Your task to perform on an android device: turn on sleep mode Image 0: 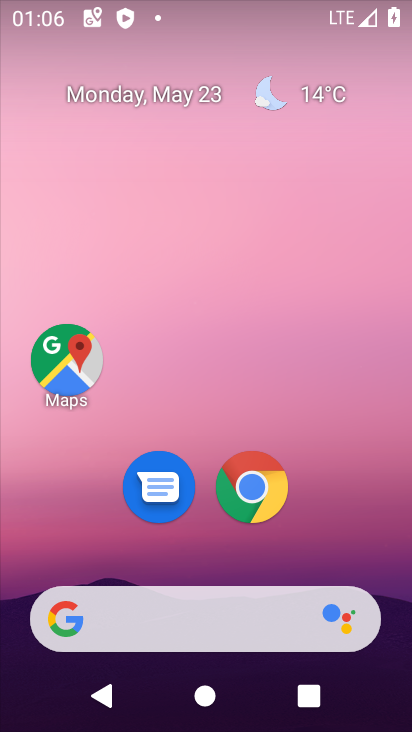
Step 0: drag from (401, 606) to (344, 104)
Your task to perform on an android device: turn on sleep mode Image 1: 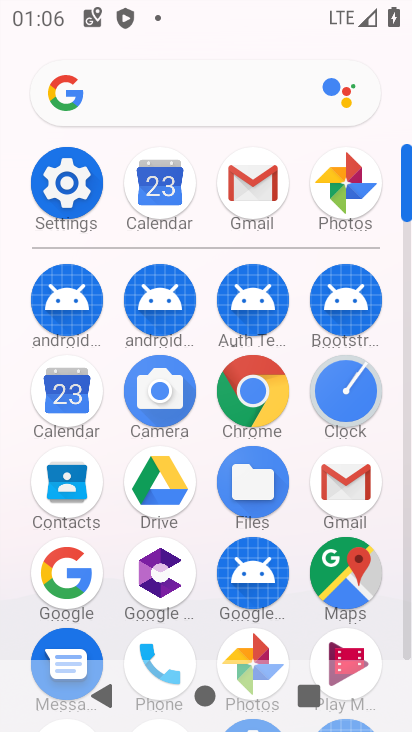
Step 1: click (405, 644)
Your task to perform on an android device: turn on sleep mode Image 2: 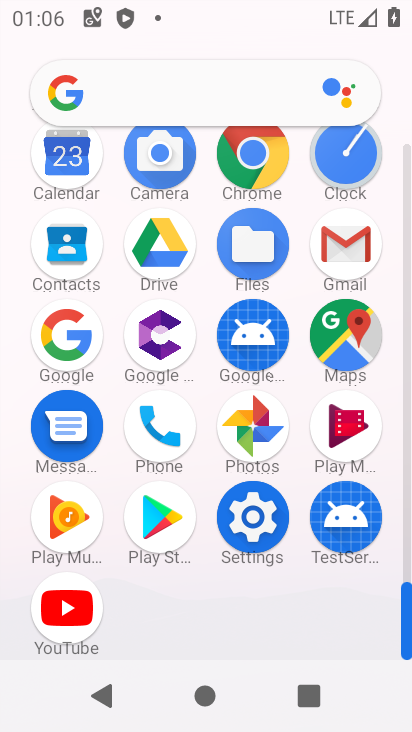
Step 2: click (250, 519)
Your task to perform on an android device: turn on sleep mode Image 3: 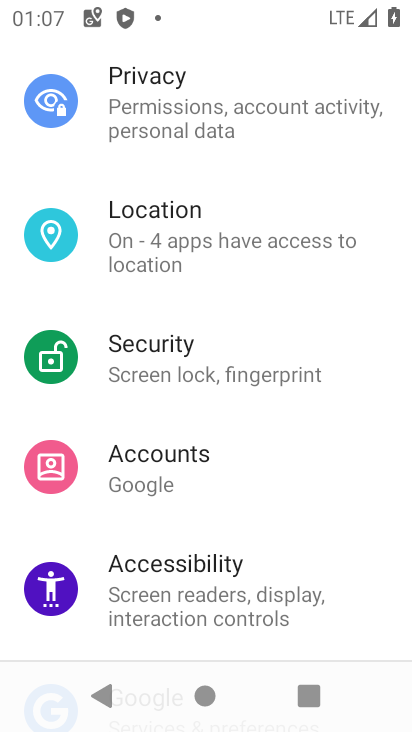
Step 3: drag from (335, 179) to (308, 552)
Your task to perform on an android device: turn on sleep mode Image 4: 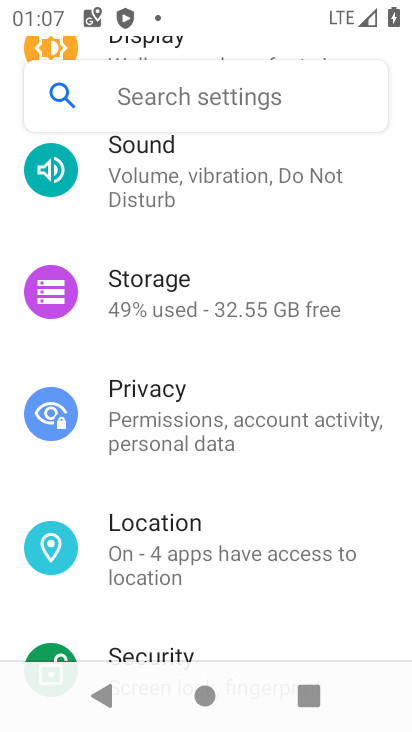
Step 4: drag from (249, 217) to (255, 519)
Your task to perform on an android device: turn on sleep mode Image 5: 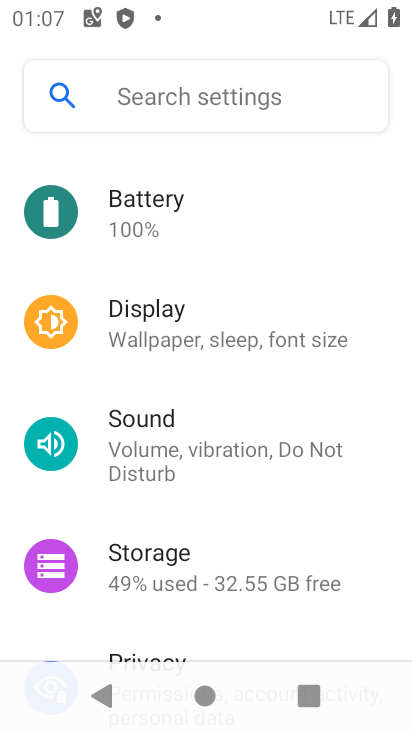
Step 5: click (160, 326)
Your task to perform on an android device: turn on sleep mode Image 6: 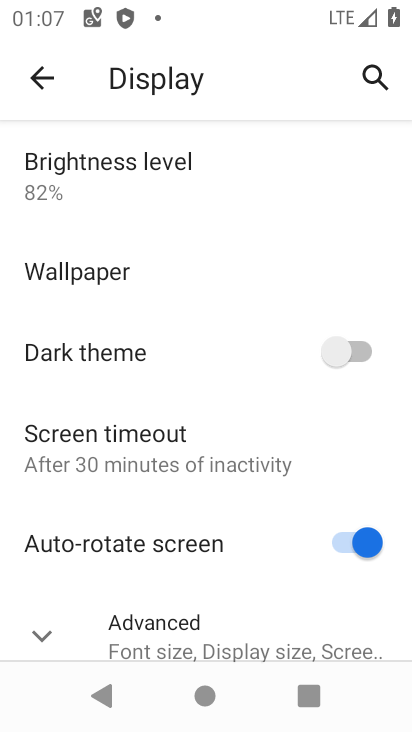
Step 6: click (30, 639)
Your task to perform on an android device: turn on sleep mode Image 7: 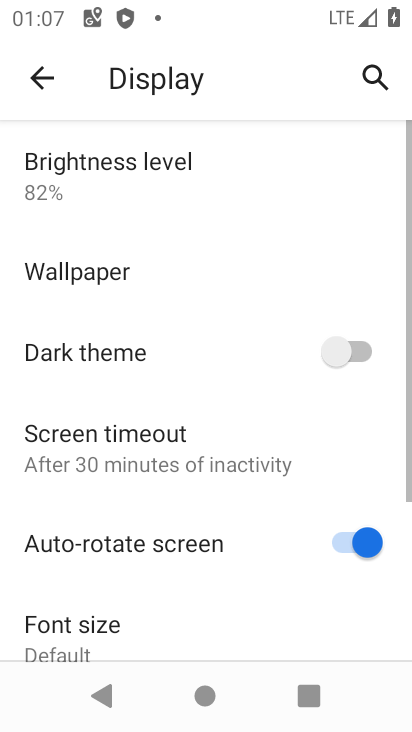
Step 7: task complete